Your task to perform on an android device: What's the weather going to be tomorrow? Image 0: 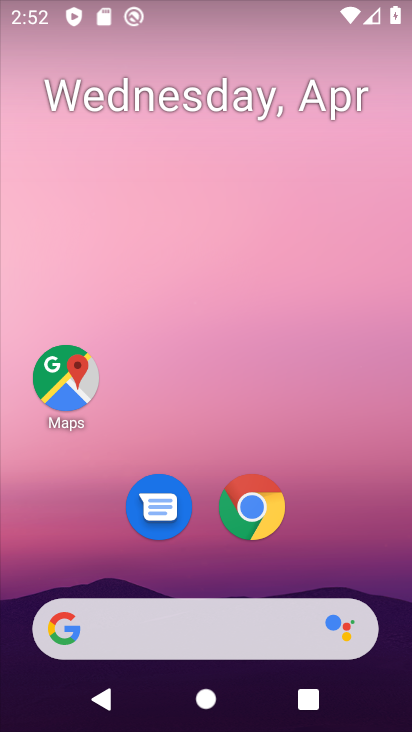
Step 0: drag from (365, 558) to (262, 32)
Your task to perform on an android device: What's the weather going to be tomorrow? Image 1: 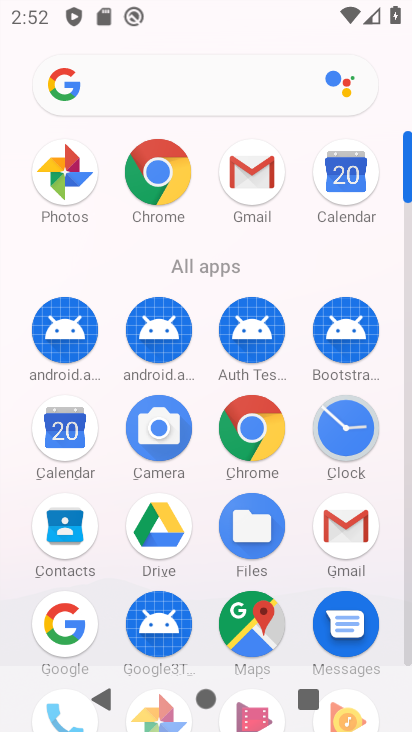
Step 1: click (161, 169)
Your task to perform on an android device: What's the weather going to be tomorrow? Image 2: 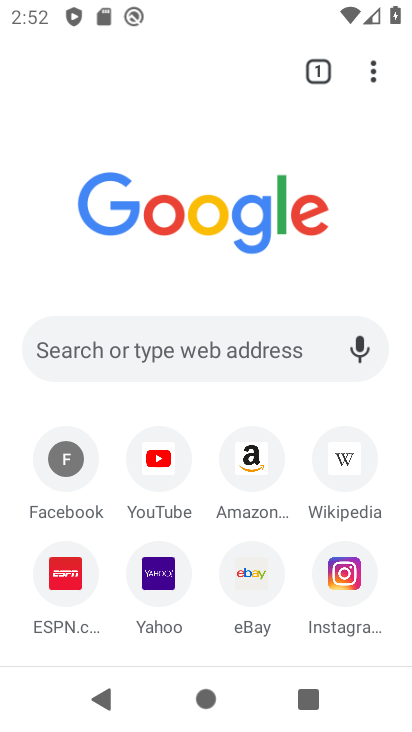
Step 2: click (38, 341)
Your task to perform on an android device: What's the weather going to be tomorrow? Image 3: 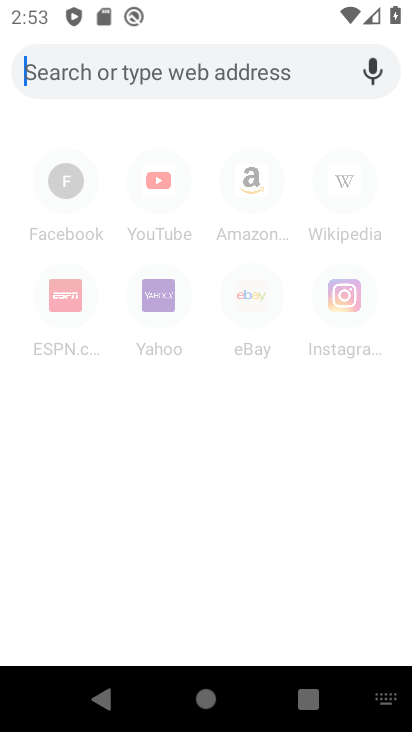
Step 3: type "What's the weather going to be tomorrow?"
Your task to perform on an android device: What's the weather going to be tomorrow? Image 4: 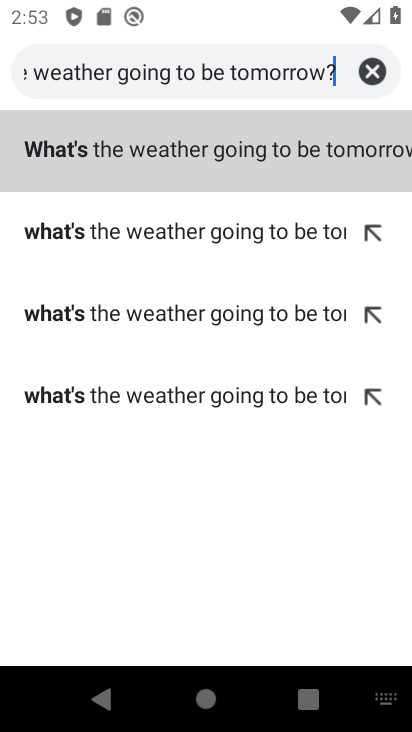
Step 4: click (334, 163)
Your task to perform on an android device: What's the weather going to be tomorrow? Image 5: 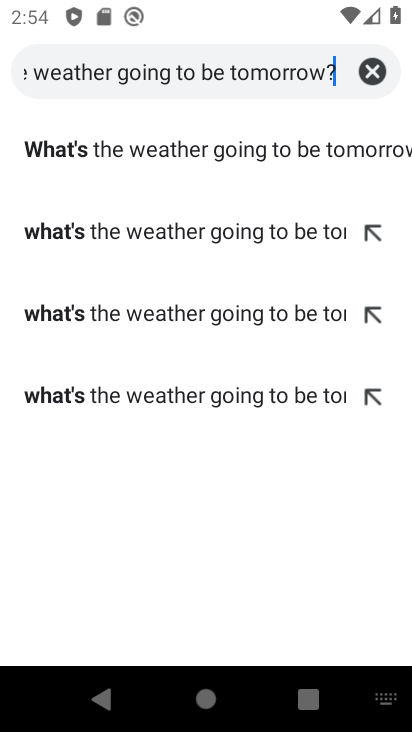
Step 5: click (254, 157)
Your task to perform on an android device: What's the weather going to be tomorrow? Image 6: 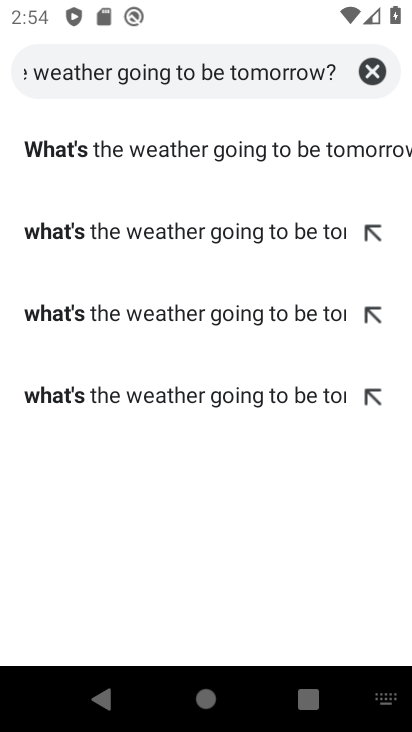
Step 6: click (314, 162)
Your task to perform on an android device: What's the weather going to be tomorrow? Image 7: 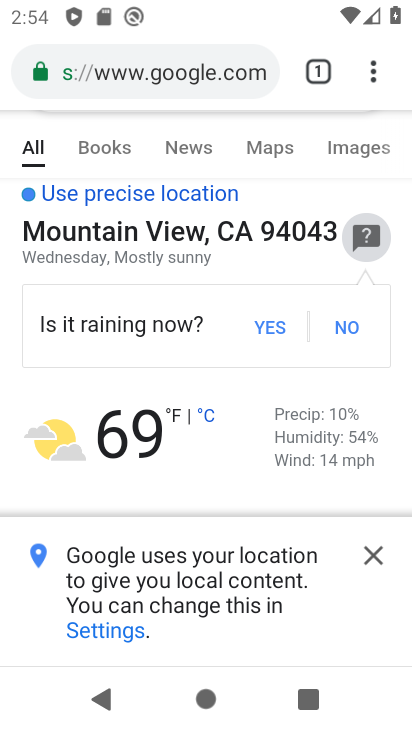
Step 7: task complete